Your task to perform on an android device: Open Reddit.com Image 0: 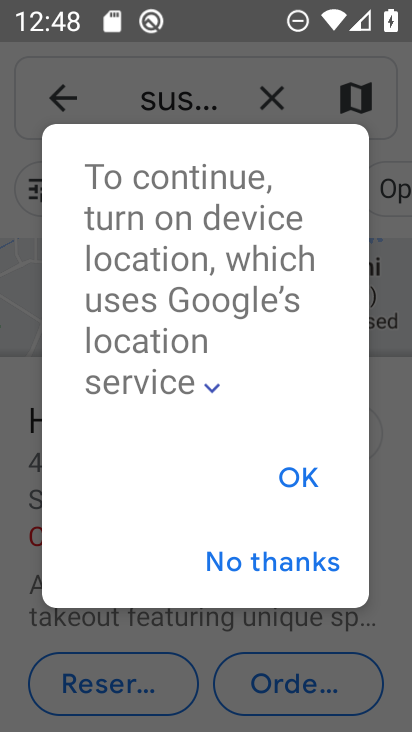
Step 0: press home button
Your task to perform on an android device: Open Reddit.com Image 1: 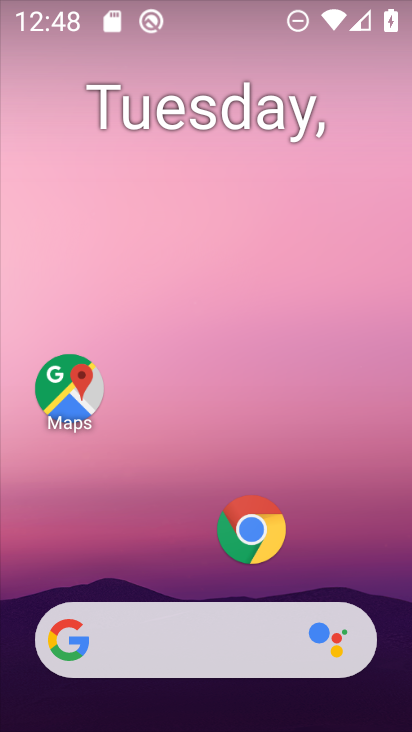
Step 1: click (255, 525)
Your task to perform on an android device: Open Reddit.com Image 2: 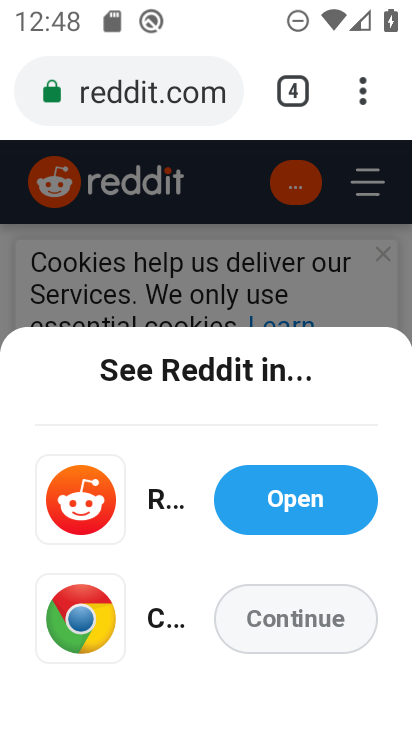
Step 2: click (288, 612)
Your task to perform on an android device: Open Reddit.com Image 3: 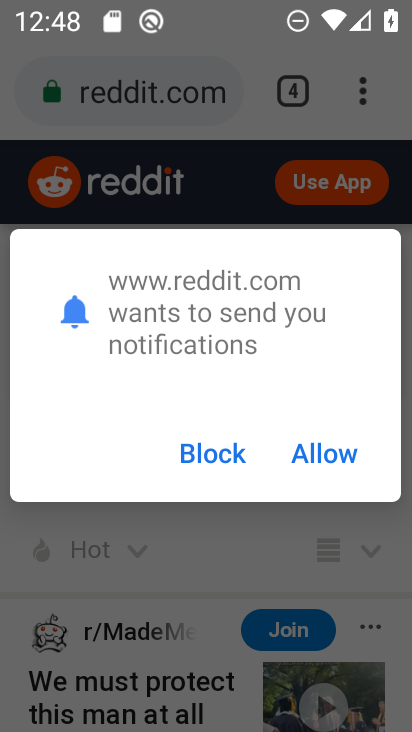
Step 3: click (334, 443)
Your task to perform on an android device: Open Reddit.com Image 4: 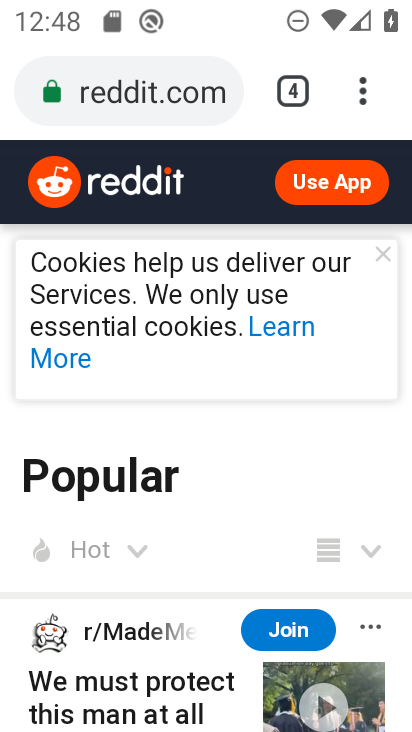
Step 4: task complete